Your task to perform on an android device: Go to Google maps Image 0: 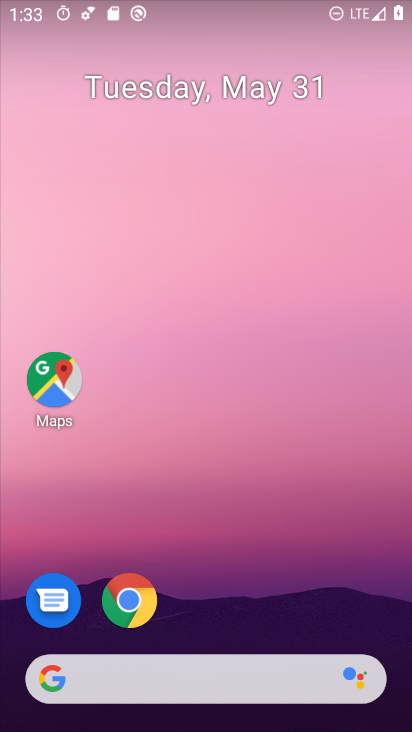
Step 0: drag from (229, 726) to (215, 30)
Your task to perform on an android device: Go to Google maps Image 1: 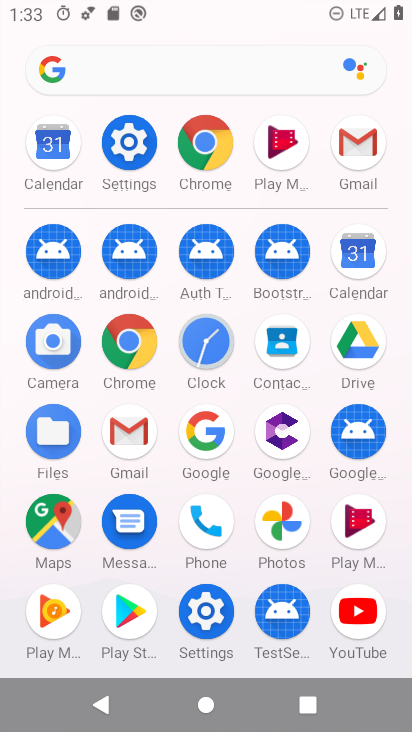
Step 1: click (45, 529)
Your task to perform on an android device: Go to Google maps Image 2: 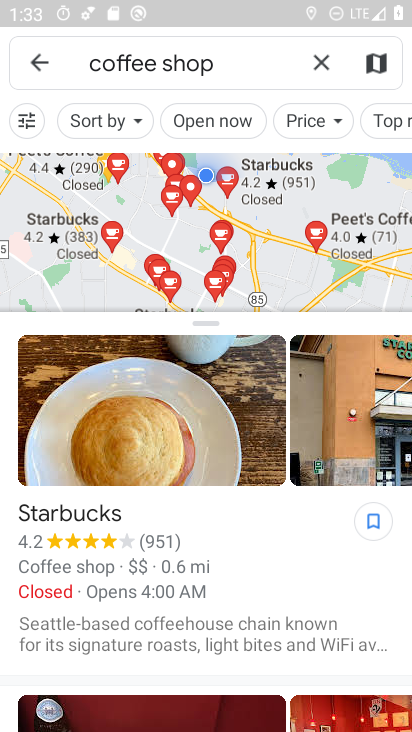
Step 2: task complete